Your task to perform on an android device: open app "DoorDash - Food Delivery" Image 0: 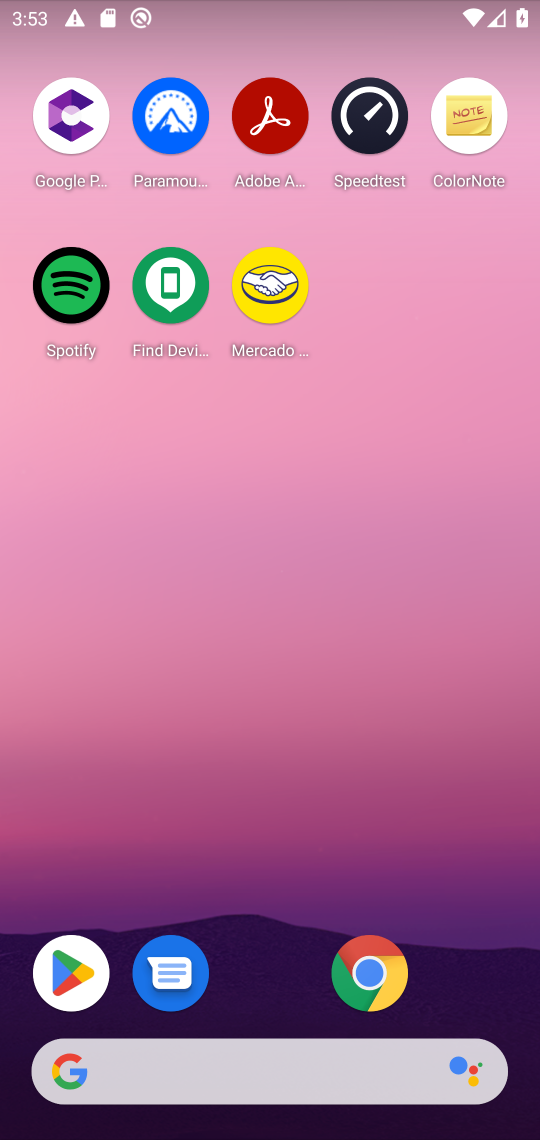
Step 0: drag from (343, 928) to (246, 434)
Your task to perform on an android device: open app "DoorDash - Food Delivery" Image 1: 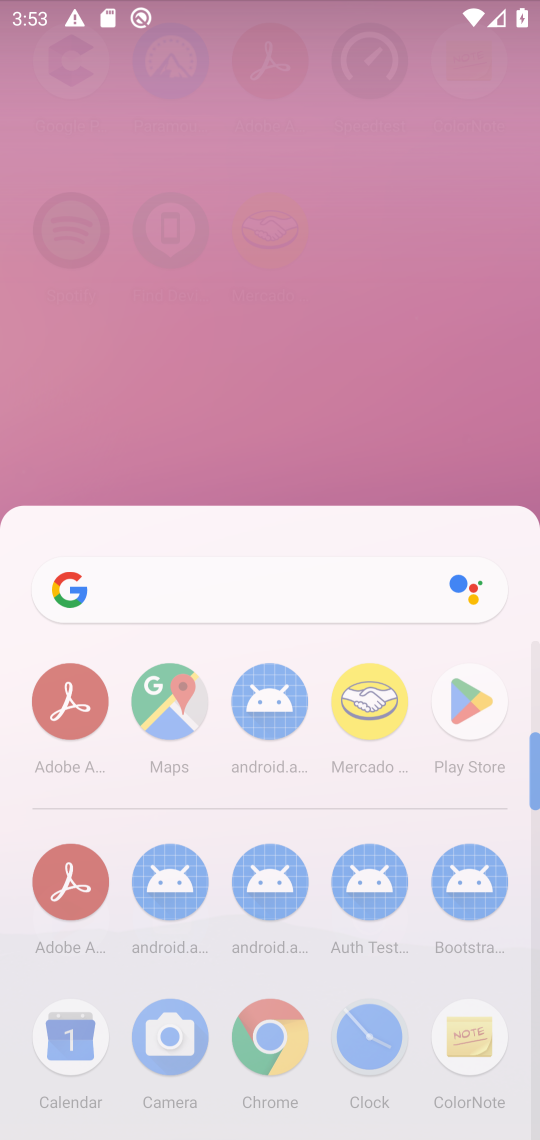
Step 1: drag from (238, 810) to (168, 330)
Your task to perform on an android device: open app "DoorDash - Food Delivery" Image 2: 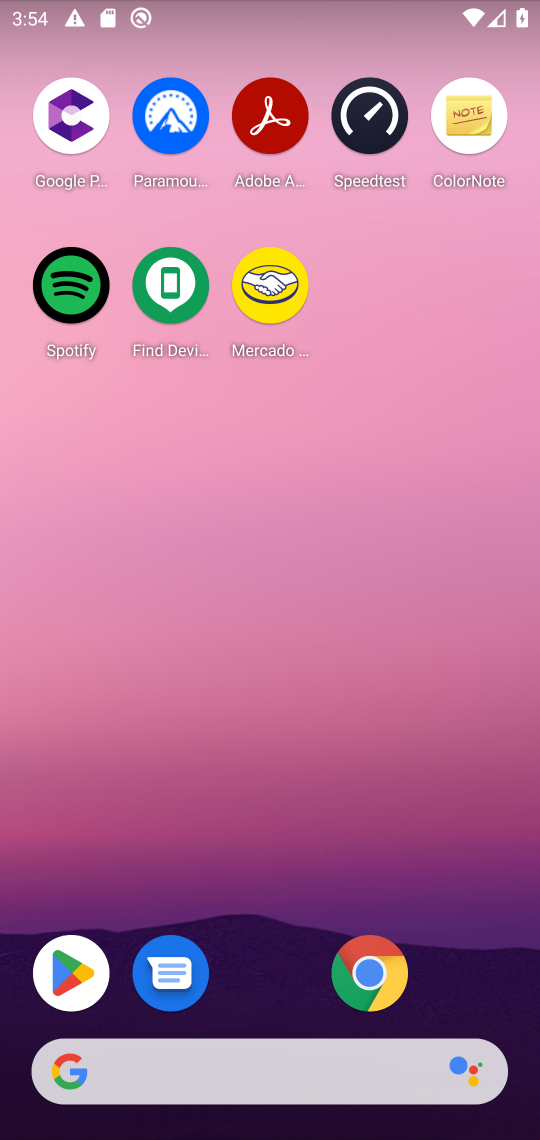
Step 2: drag from (368, 947) to (319, 334)
Your task to perform on an android device: open app "DoorDash - Food Delivery" Image 3: 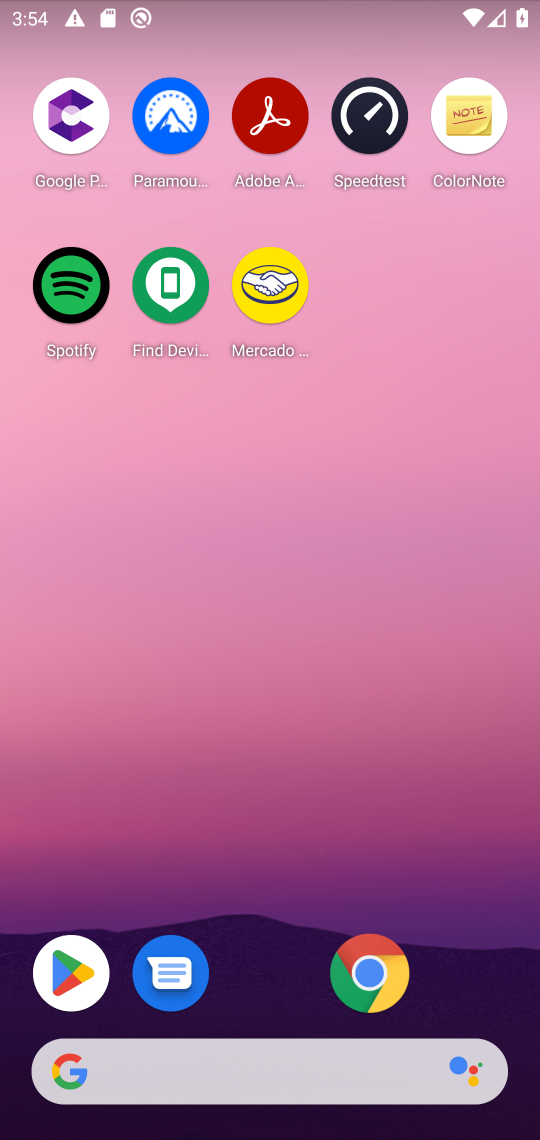
Step 3: drag from (266, 754) to (220, 310)
Your task to perform on an android device: open app "DoorDash - Food Delivery" Image 4: 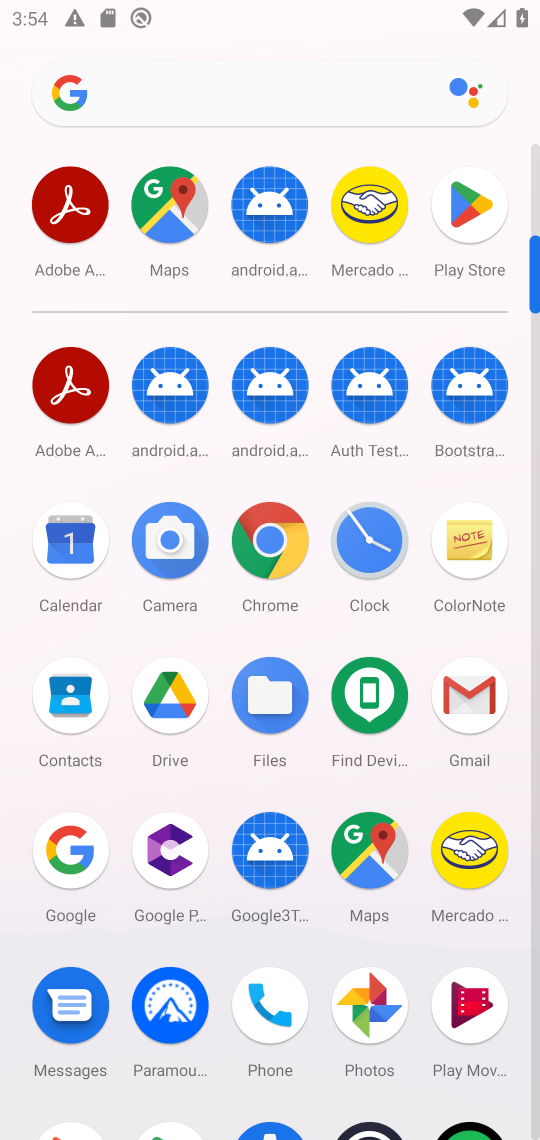
Step 4: drag from (373, 764) to (330, 365)
Your task to perform on an android device: open app "DoorDash - Food Delivery" Image 5: 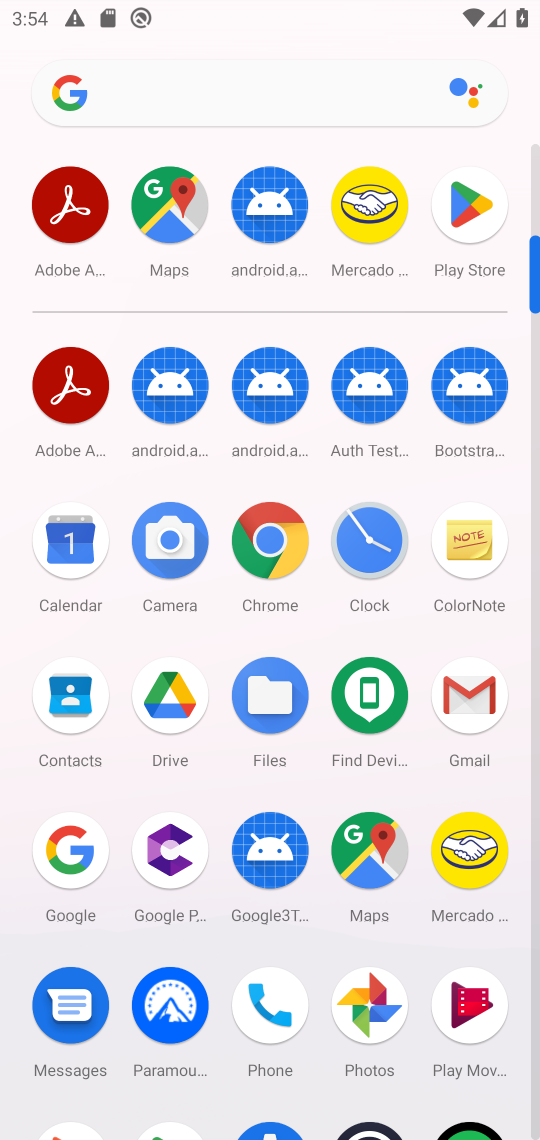
Step 5: click (484, 200)
Your task to perform on an android device: open app "DoorDash - Food Delivery" Image 6: 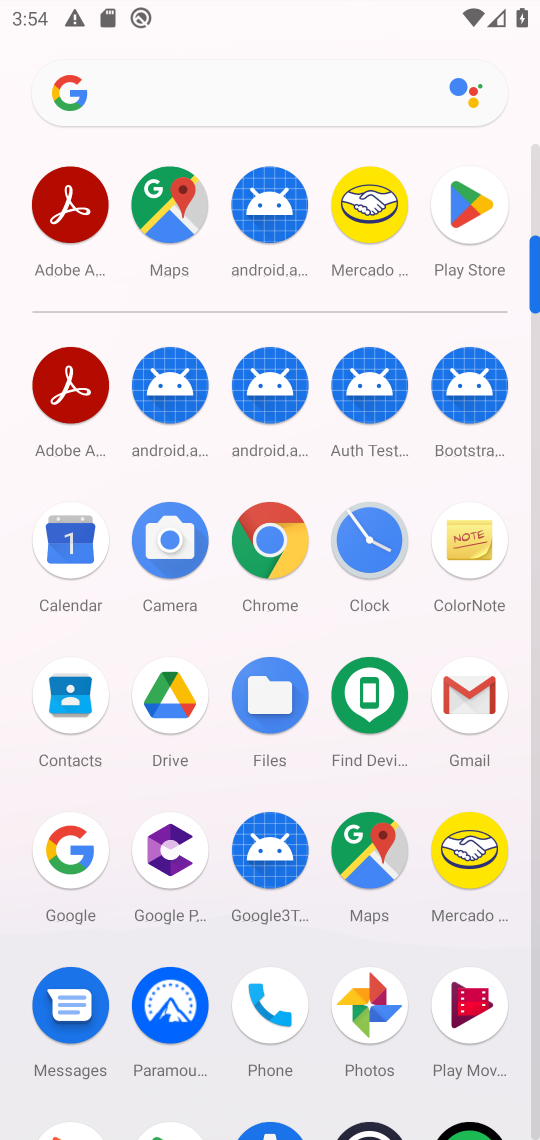
Step 6: click (484, 200)
Your task to perform on an android device: open app "DoorDash - Food Delivery" Image 7: 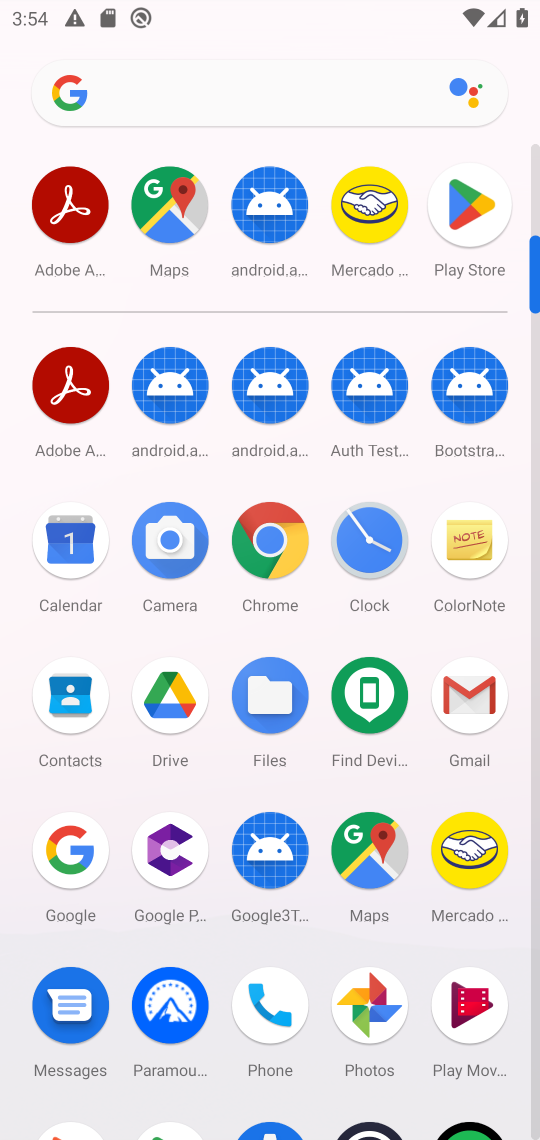
Step 7: click (482, 199)
Your task to perform on an android device: open app "DoorDash - Food Delivery" Image 8: 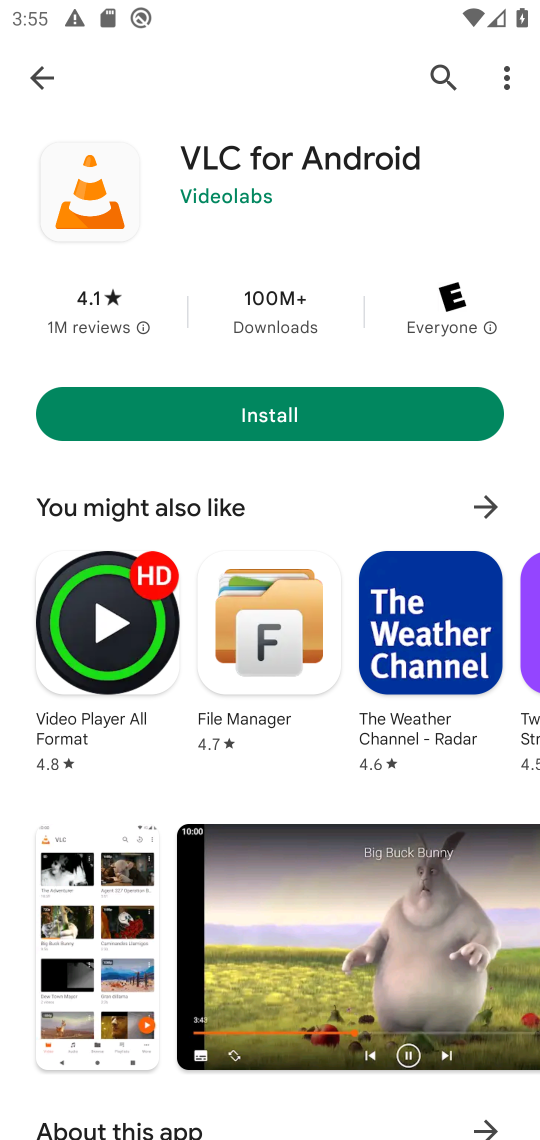
Step 8: click (285, 415)
Your task to perform on an android device: open app "DoorDash - Food Delivery" Image 9: 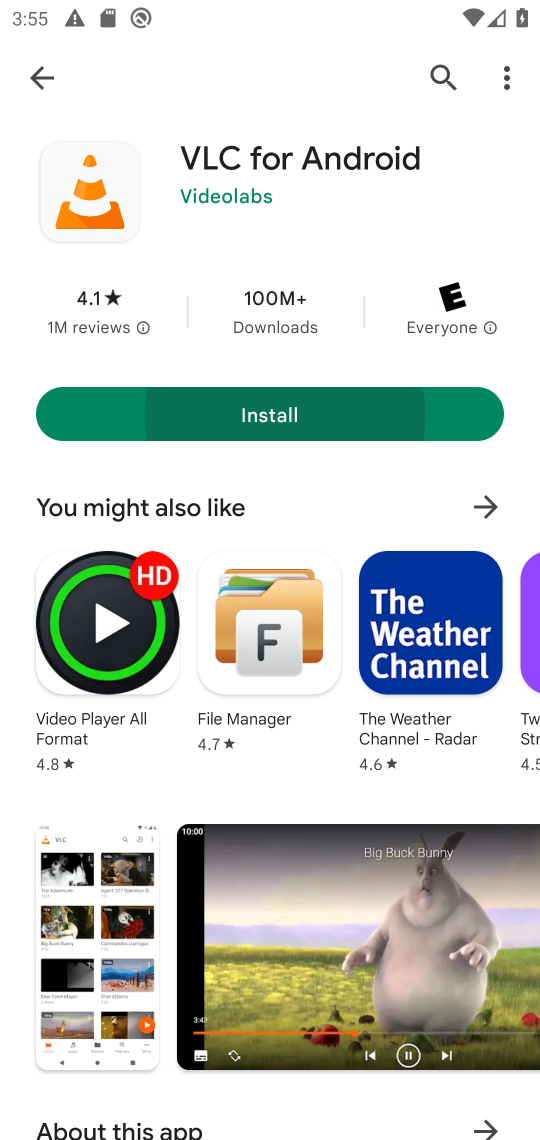
Step 9: click (285, 415)
Your task to perform on an android device: open app "DoorDash - Food Delivery" Image 10: 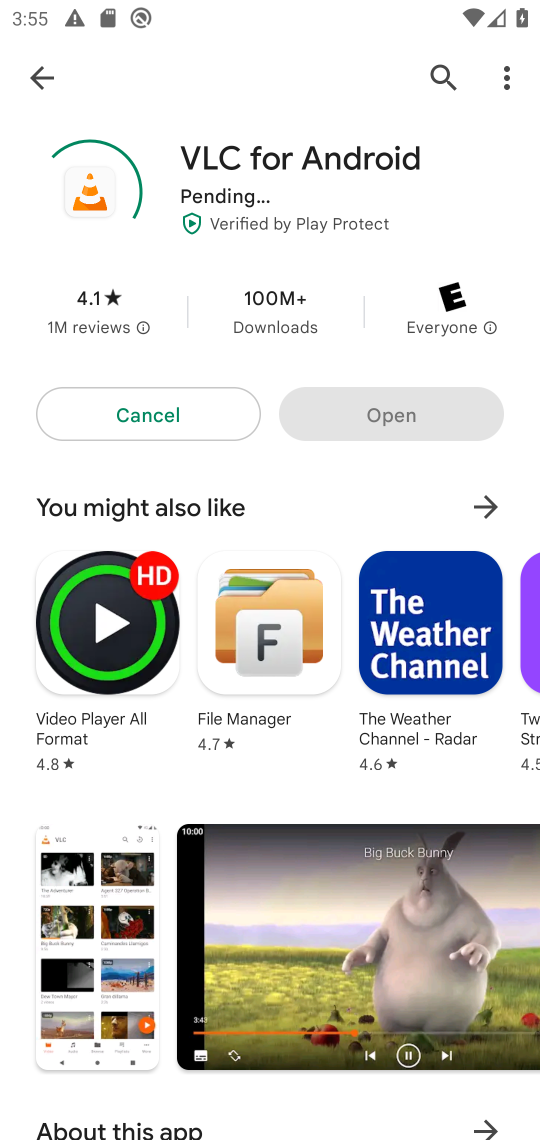
Step 10: click (16, 60)
Your task to perform on an android device: open app "DoorDash - Food Delivery" Image 11: 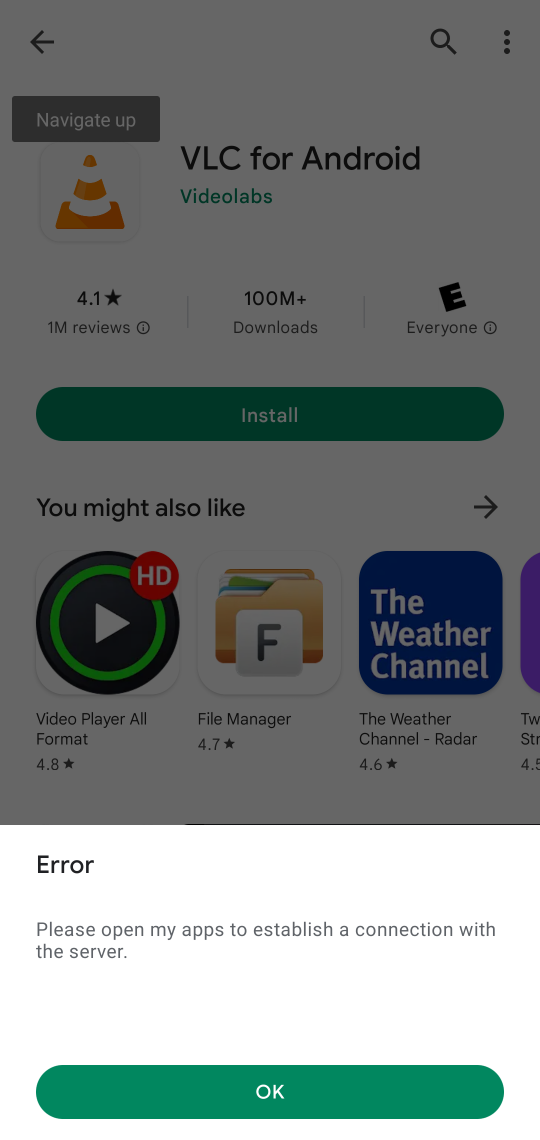
Step 11: click (365, 422)
Your task to perform on an android device: open app "DoorDash - Food Delivery" Image 12: 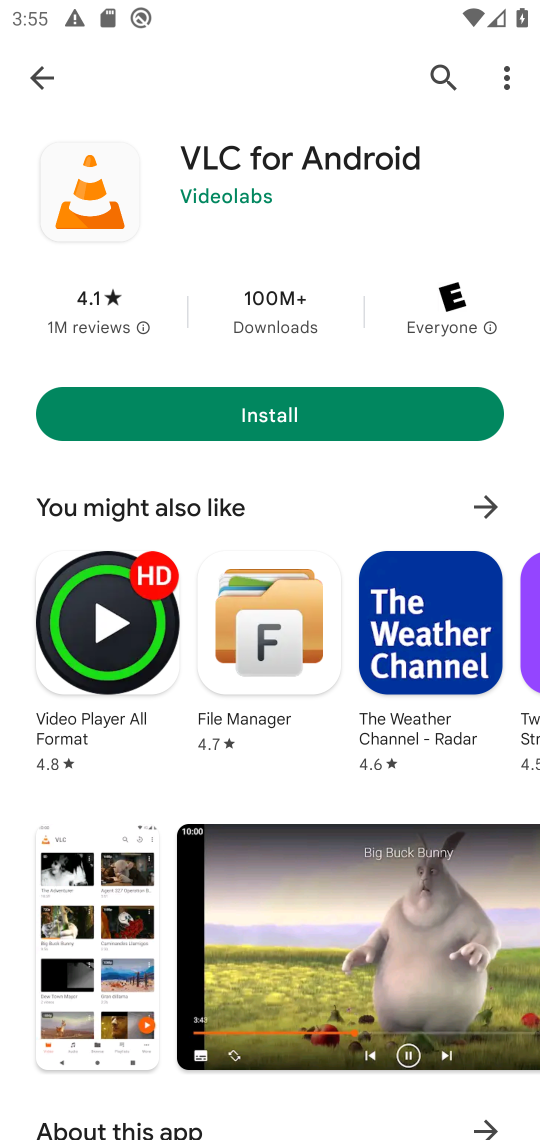
Step 12: press back button
Your task to perform on an android device: open app "DoorDash - Food Delivery" Image 13: 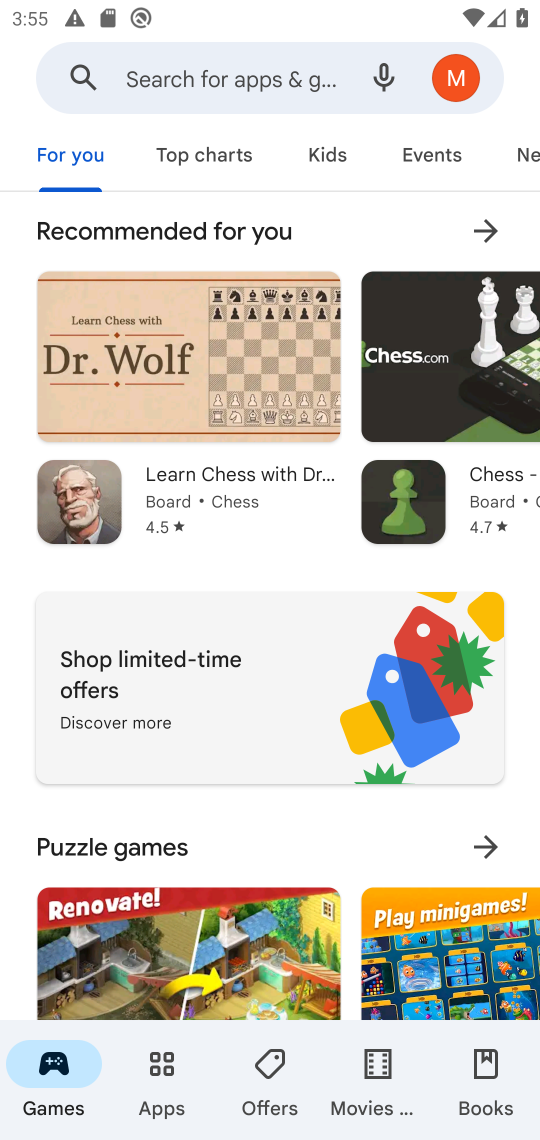
Step 13: click (169, 87)
Your task to perform on an android device: open app "DoorDash - Food Delivery" Image 14: 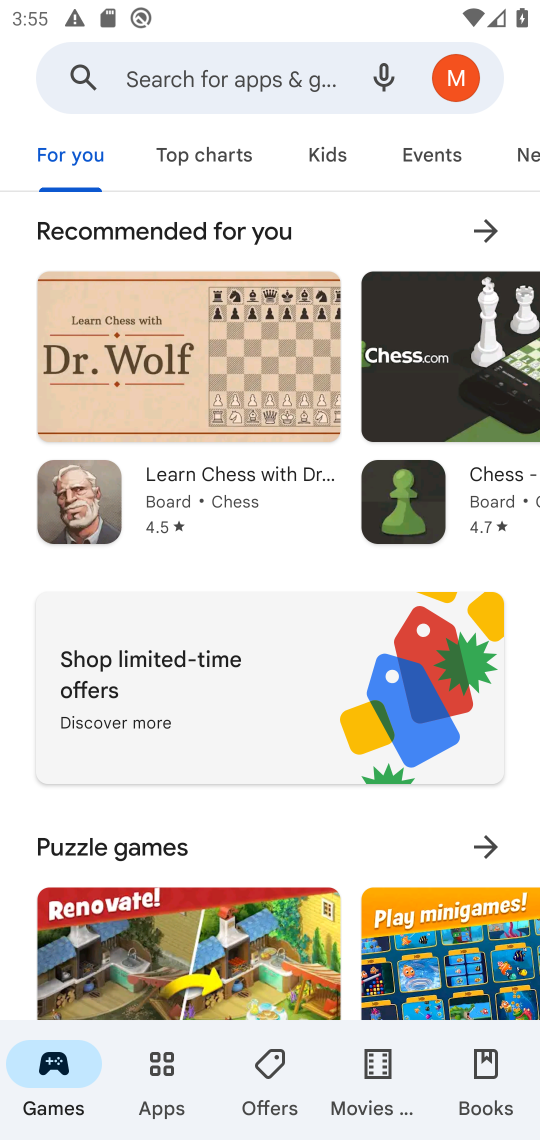
Step 14: click (181, 95)
Your task to perform on an android device: open app "DoorDash - Food Delivery" Image 15: 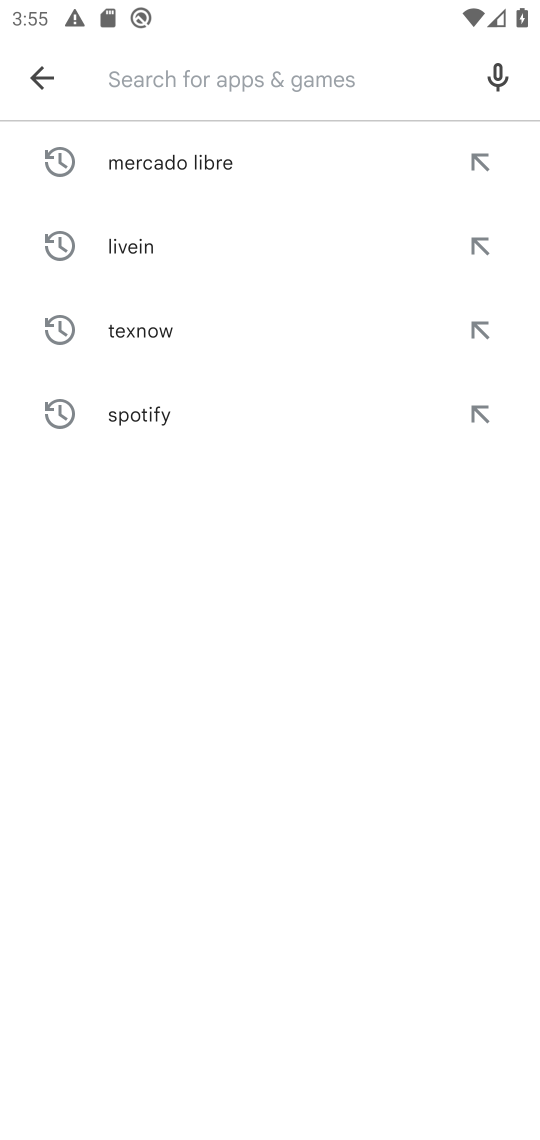
Step 15: click (163, 97)
Your task to perform on an android device: open app "DoorDash - Food Delivery" Image 16: 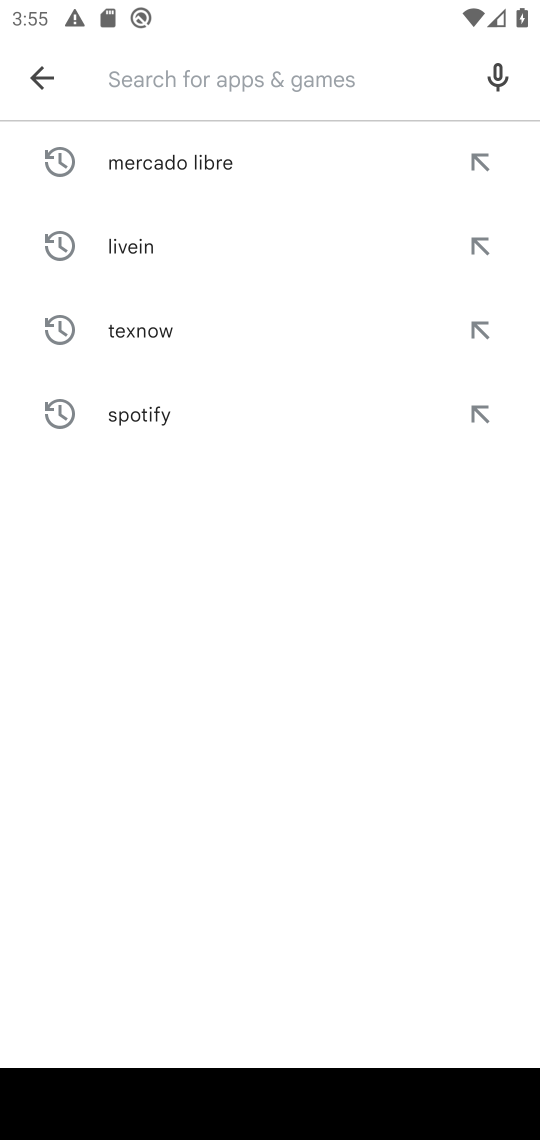
Step 16: type "doordash"
Your task to perform on an android device: open app "DoorDash - Food Delivery" Image 17: 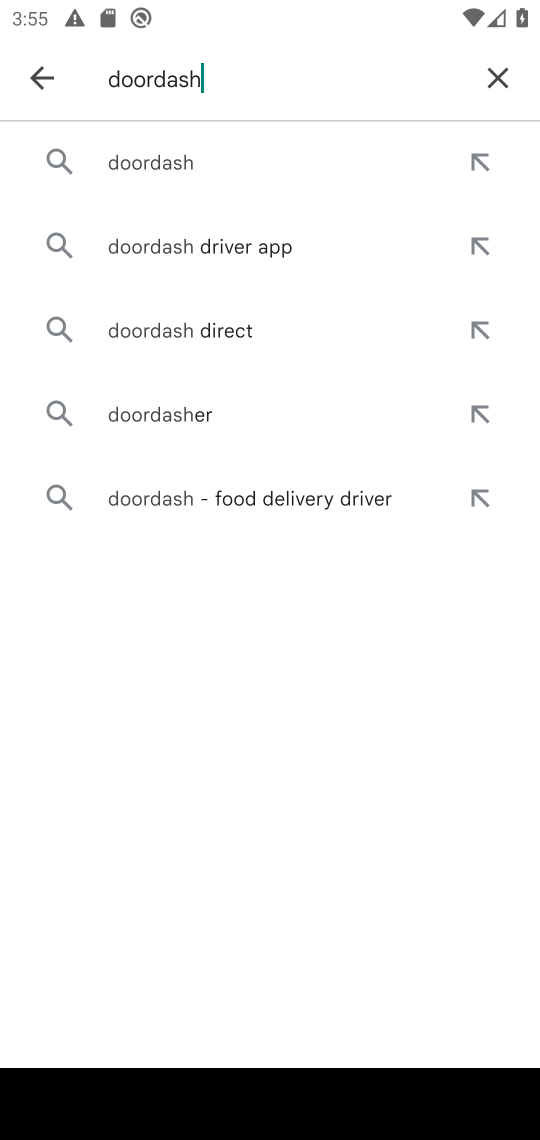
Step 17: click (159, 149)
Your task to perform on an android device: open app "DoorDash - Food Delivery" Image 18: 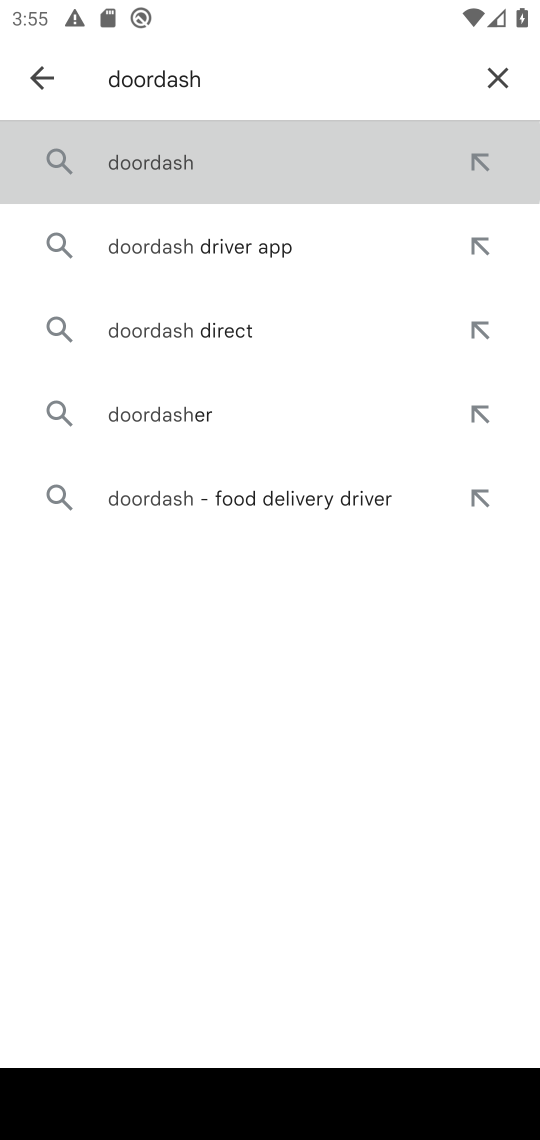
Step 18: click (165, 149)
Your task to perform on an android device: open app "DoorDash - Food Delivery" Image 19: 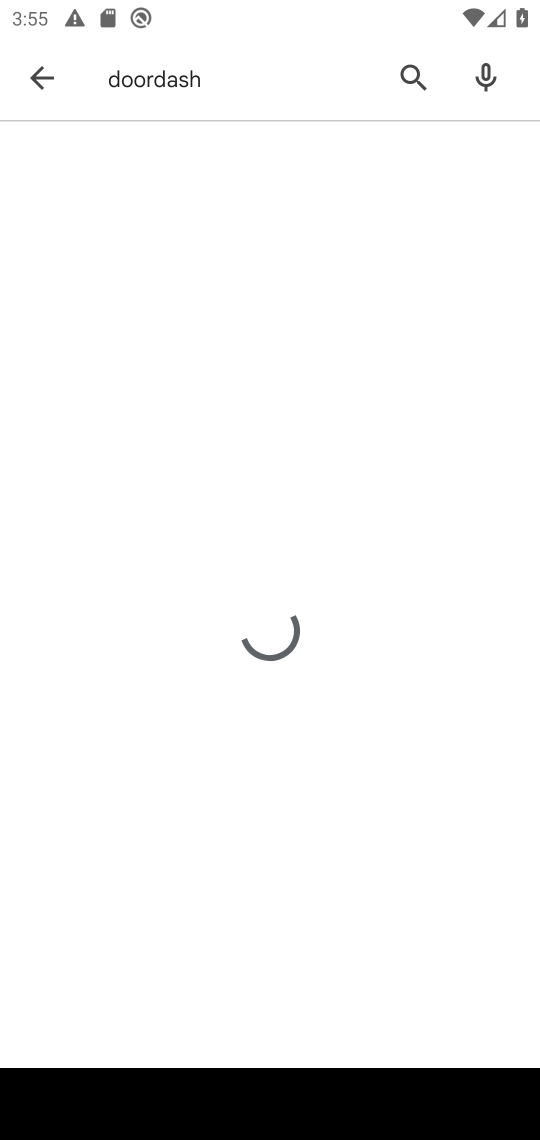
Step 19: click (171, 152)
Your task to perform on an android device: open app "DoorDash - Food Delivery" Image 20: 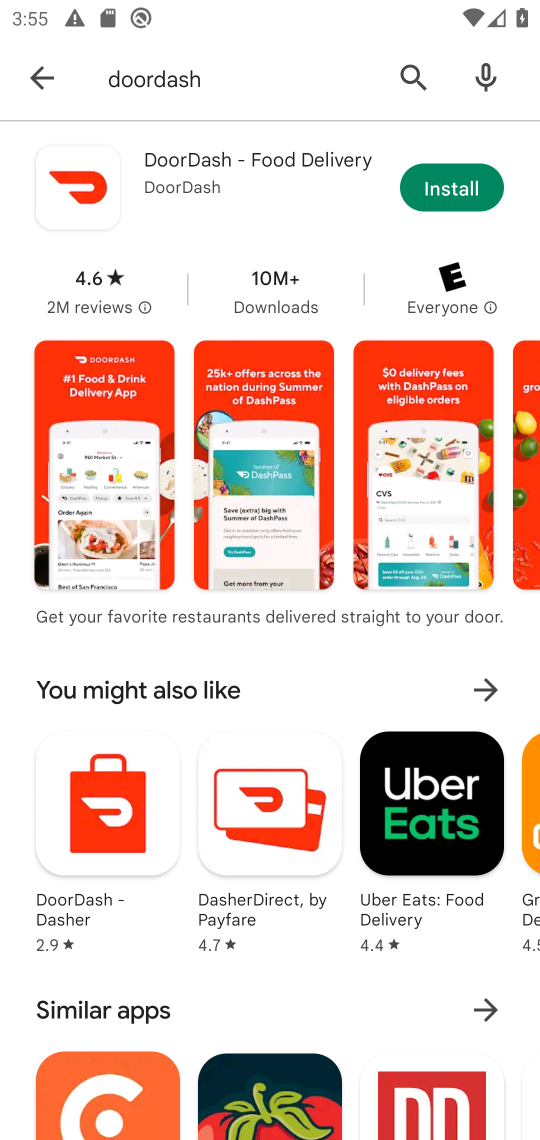
Step 20: click (439, 195)
Your task to perform on an android device: open app "DoorDash - Food Delivery" Image 21: 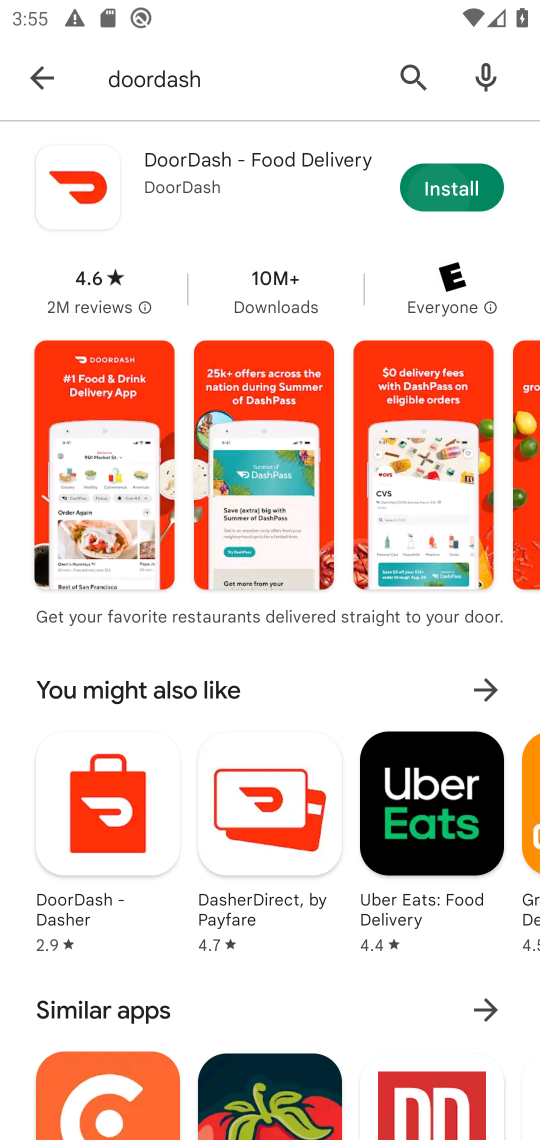
Step 21: click (440, 194)
Your task to perform on an android device: open app "DoorDash - Food Delivery" Image 22: 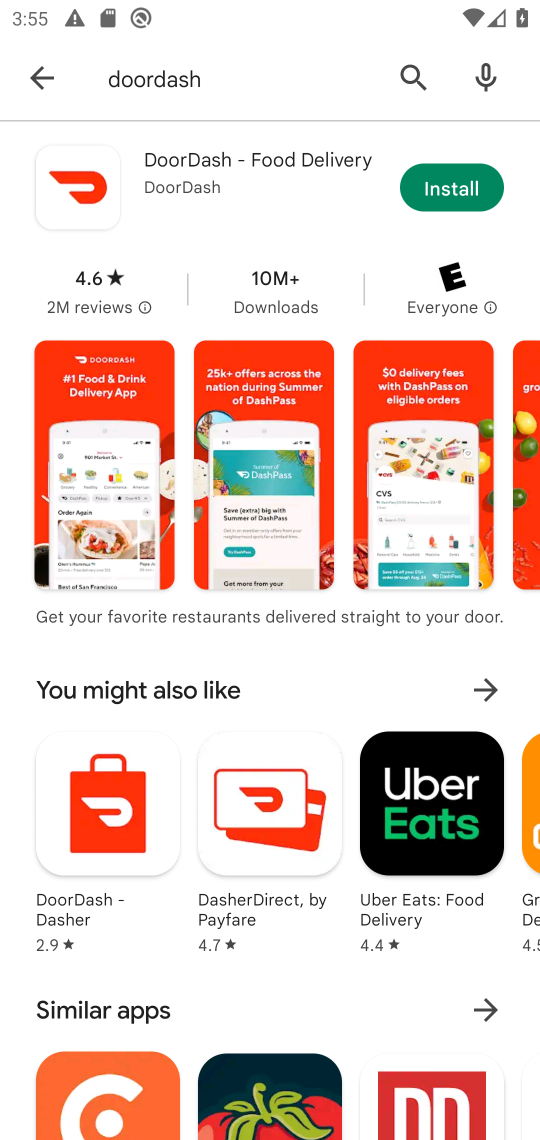
Step 22: click (482, 191)
Your task to perform on an android device: open app "DoorDash - Food Delivery" Image 23: 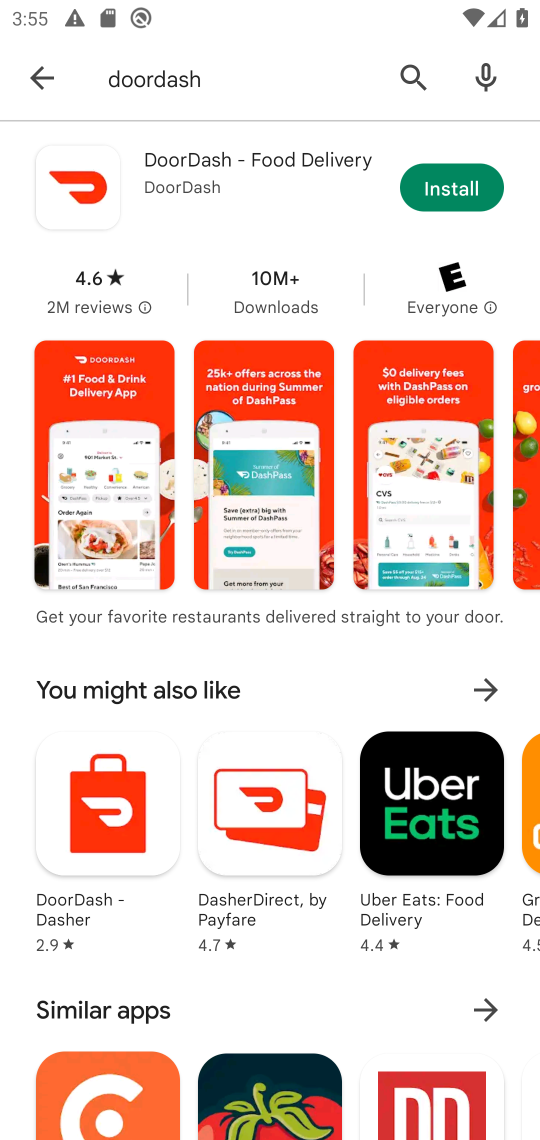
Step 23: click (480, 190)
Your task to perform on an android device: open app "DoorDash - Food Delivery" Image 24: 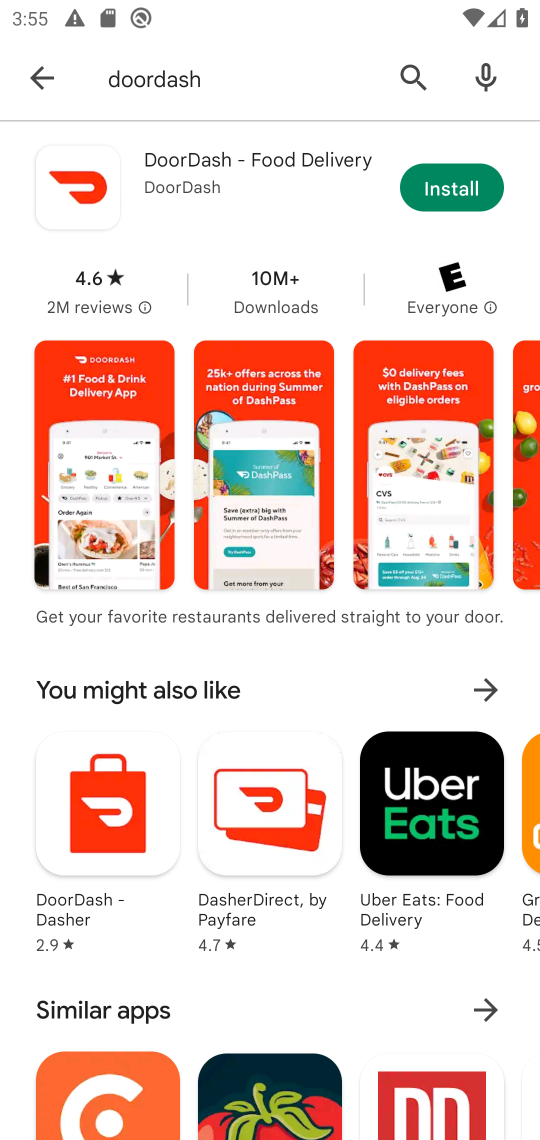
Step 24: click (431, 198)
Your task to perform on an android device: open app "DoorDash - Food Delivery" Image 25: 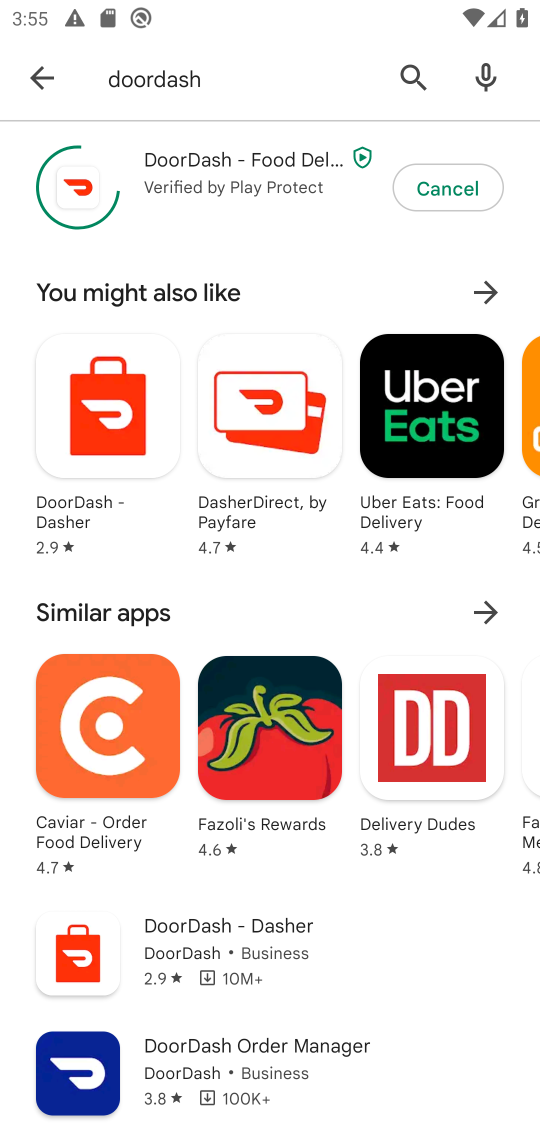
Step 25: click (432, 201)
Your task to perform on an android device: open app "DoorDash - Food Delivery" Image 26: 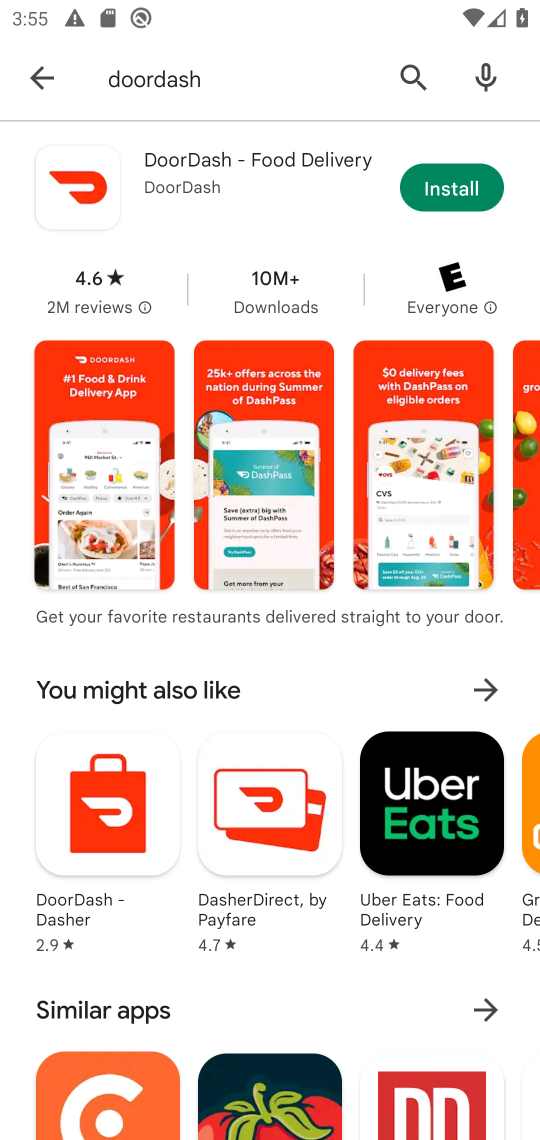
Step 26: click (427, 185)
Your task to perform on an android device: open app "DoorDash - Food Delivery" Image 27: 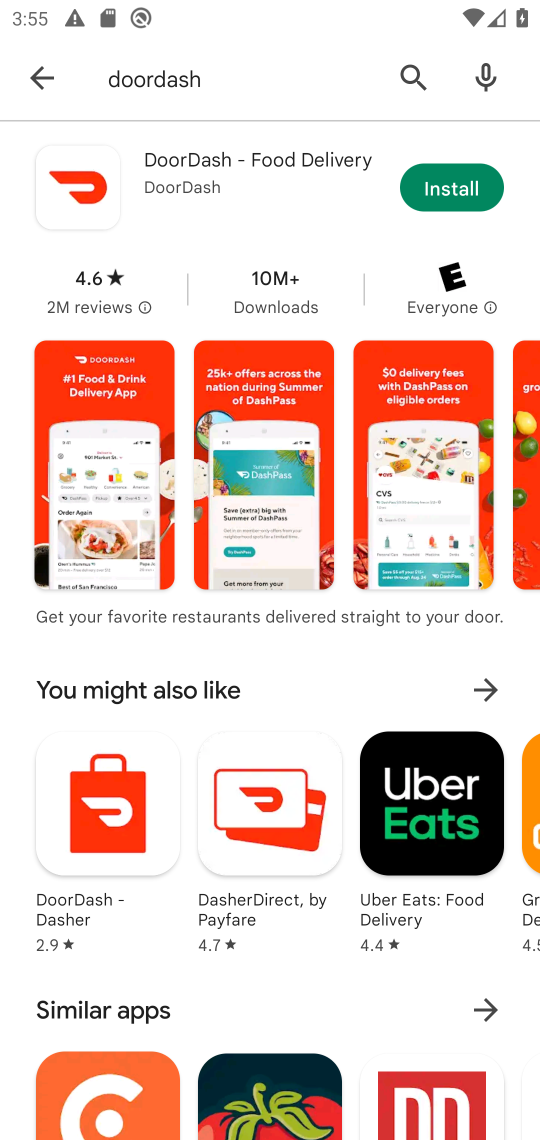
Step 27: click (435, 184)
Your task to perform on an android device: open app "DoorDash - Food Delivery" Image 28: 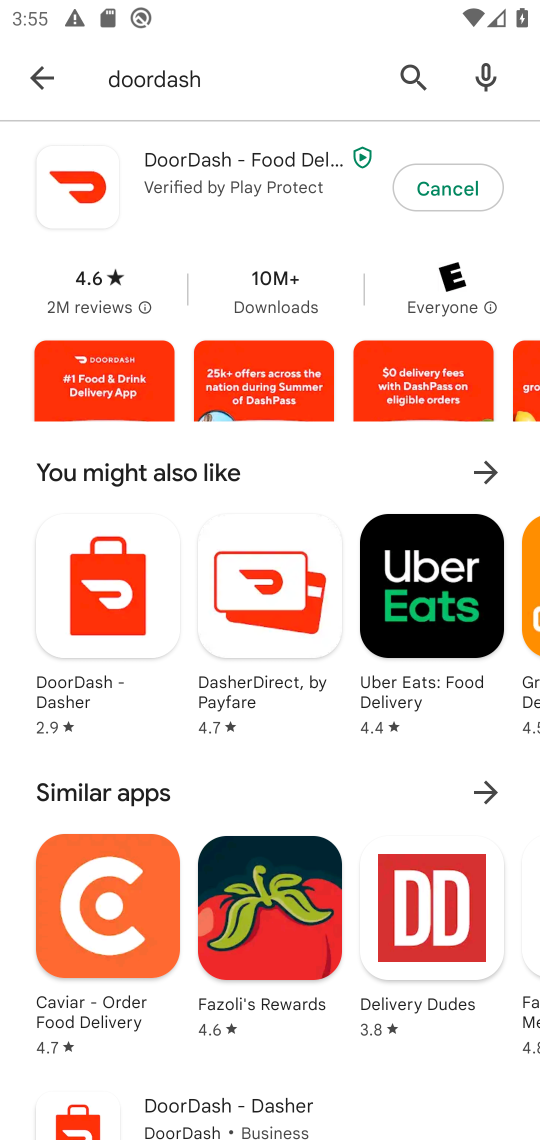
Step 28: click (436, 183)
Your task to perform on an android device: open app "DoorDash - Food Delivery" Image 29: 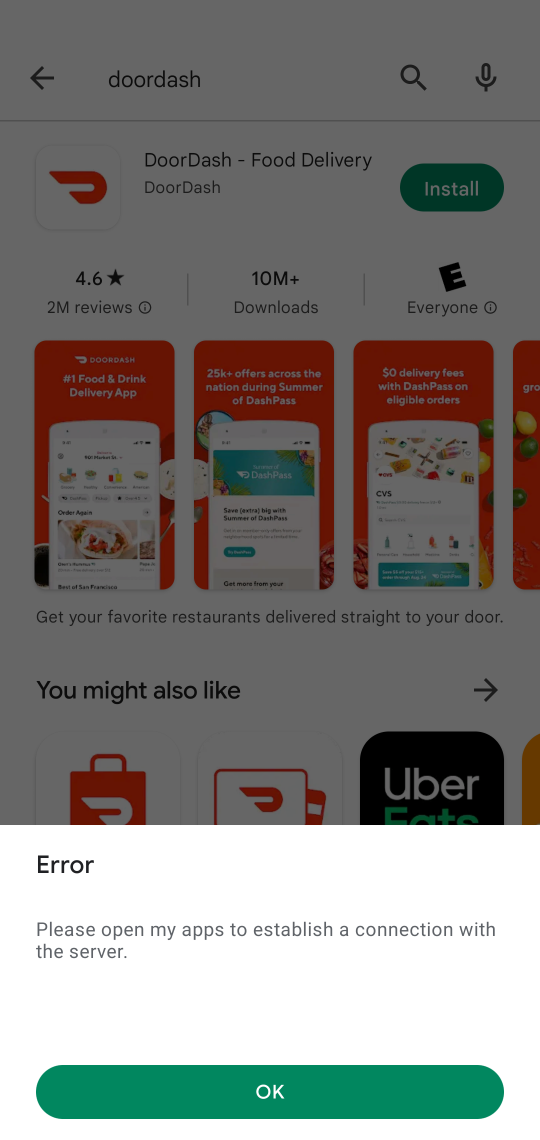
Step 29: click (301, 1097)
Your task to perform on an android device: open app "DoorDash - Food Delivery" Image 30: 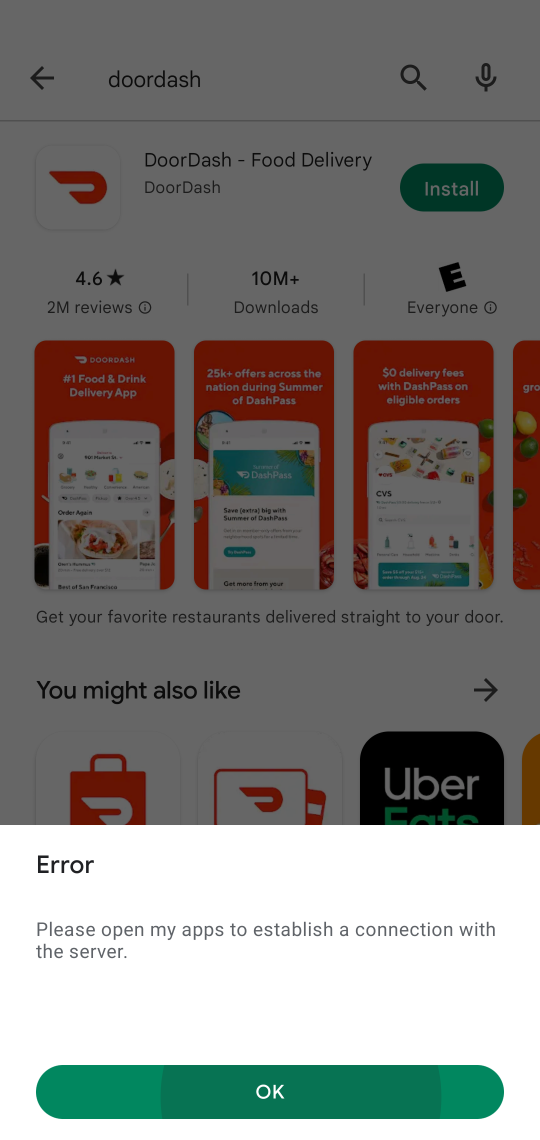
Step 30: click (331, 1083)
Your task to perform on an android device: open app "DoorDash - Food Delivery" Image 31: 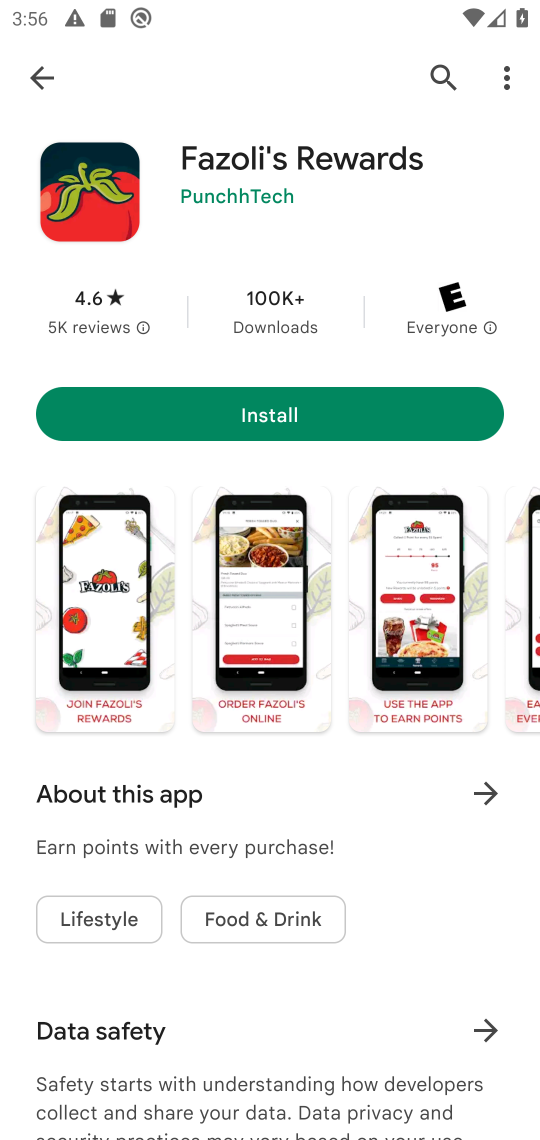
Step 31: click (261, 415)
Your task to perform on an android device: open app "DoorDash - Food Delivery" Image 32: 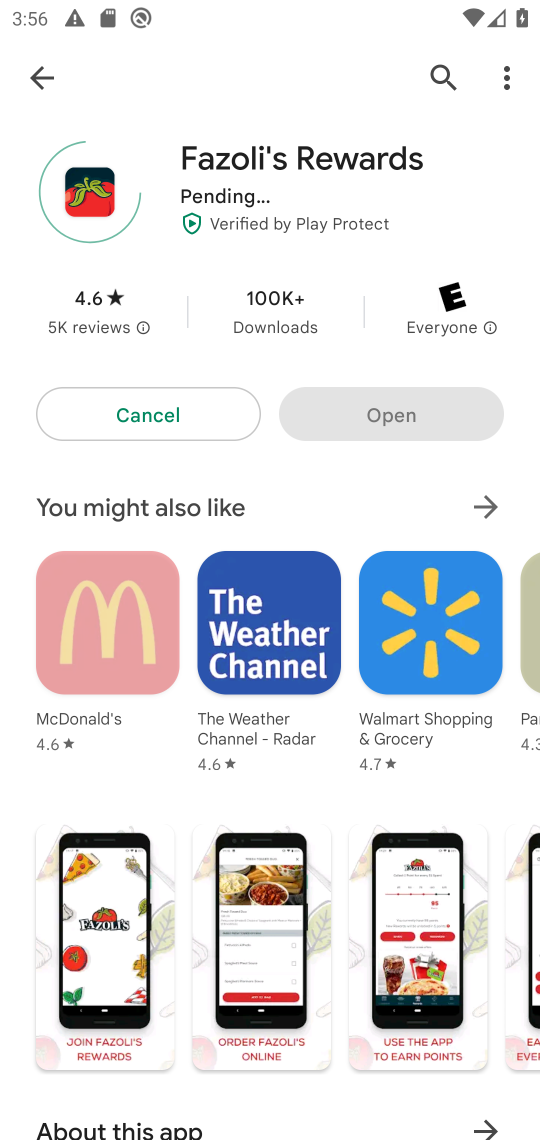
Step 32: click (37, 73)
Your task to perform on an android device: open app "DoorDash - Food Delivery" Image 33: 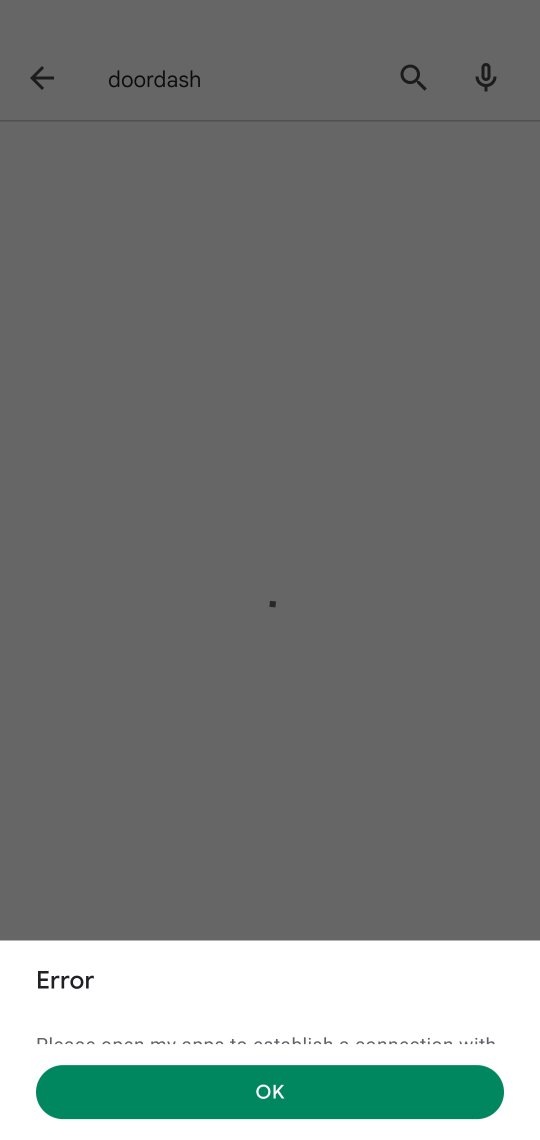
Step 33: click (153, 392)
Your task to perform on an android device: open app "DoorDash - Food Delivery" Image 34: 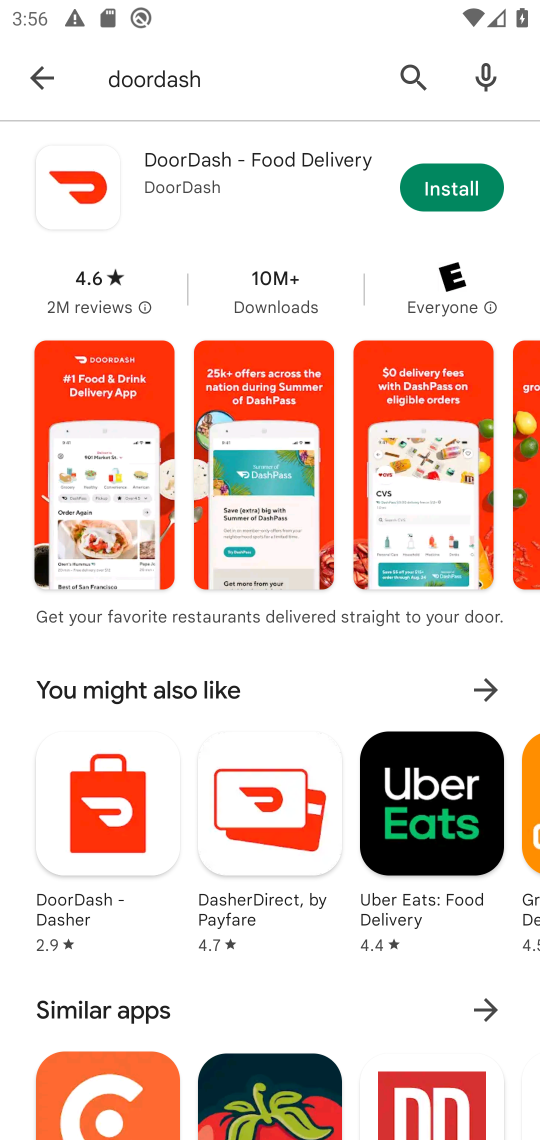
Step 34: click (271, 1103)
Your task to perform on an android device: open app "DoorDash - Food Delivery" Image 35: 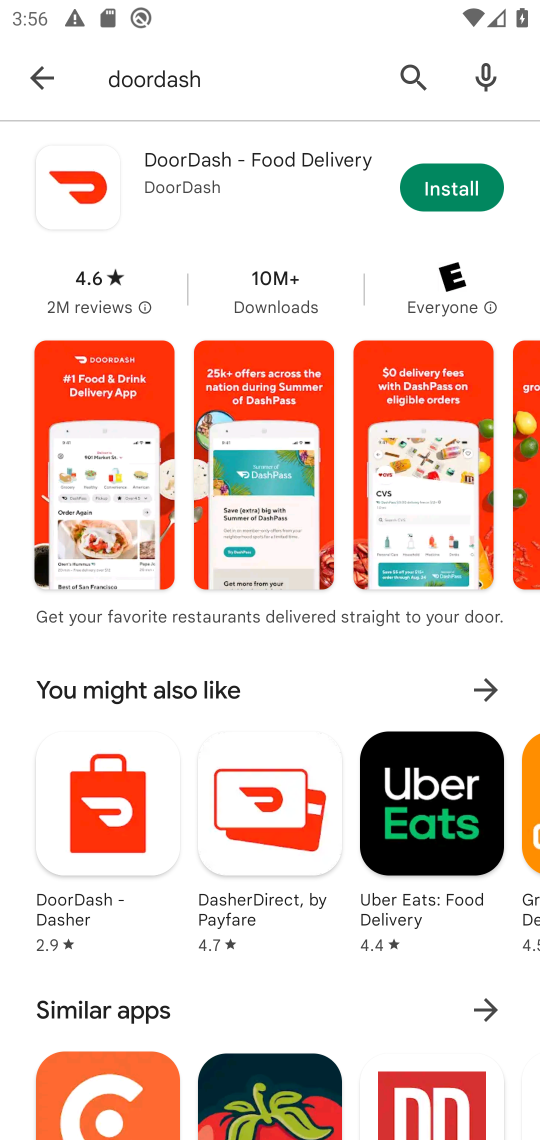
Step 35: click (433, 189)
Your task to perform on an android device: open app "DoorDash - Food Delivery" Image 36: 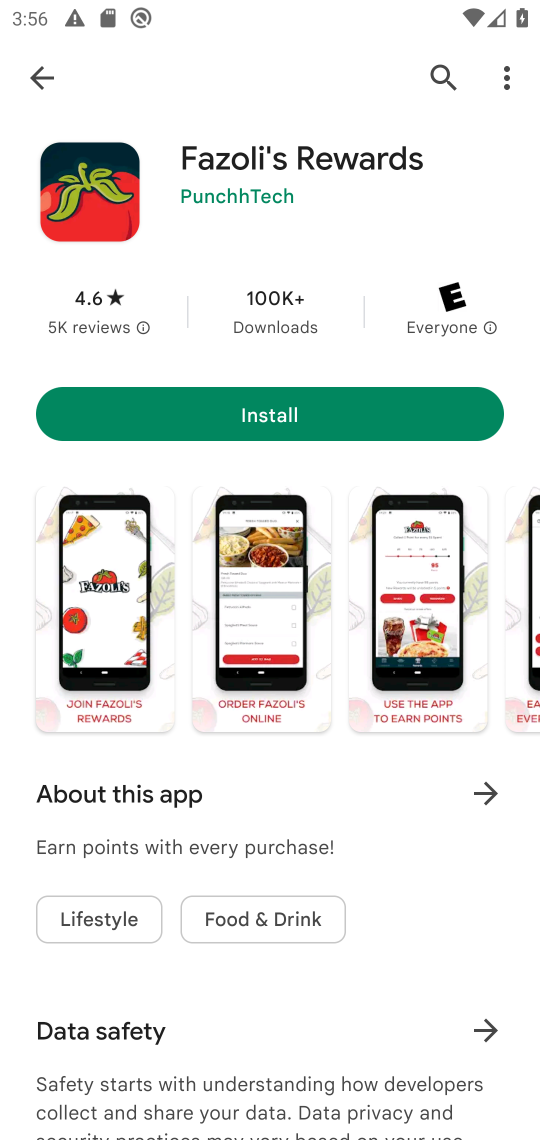
Step 36: click (448, 190)
Your task to perform on an android device: open app "DoorDash - Food Delivery" Image 37: 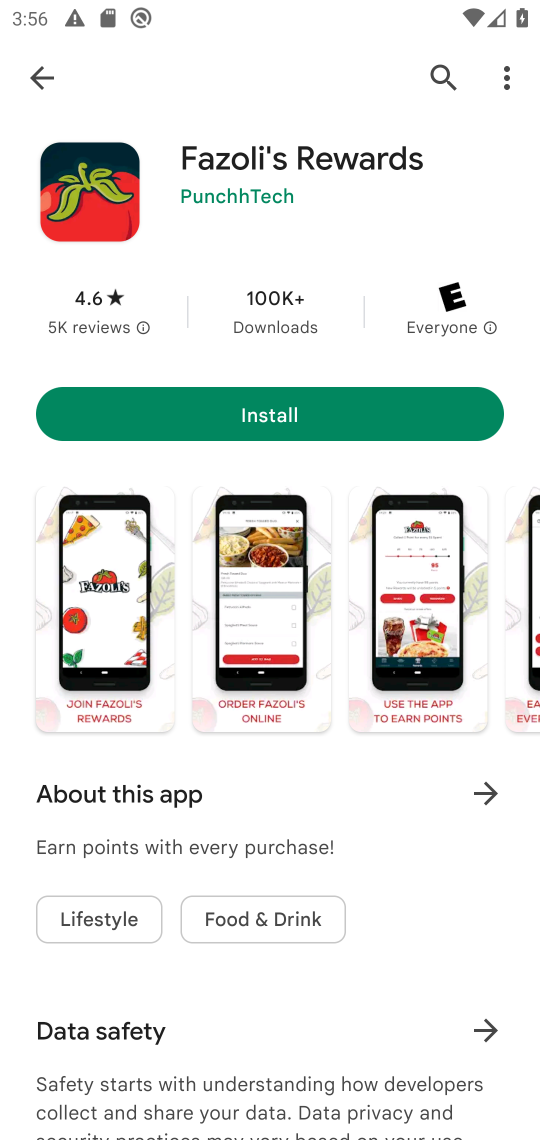
Step 37: click (31, 68)
Your task to perform on an android device: open app "DoorDash - Food Delivery" Image 38: 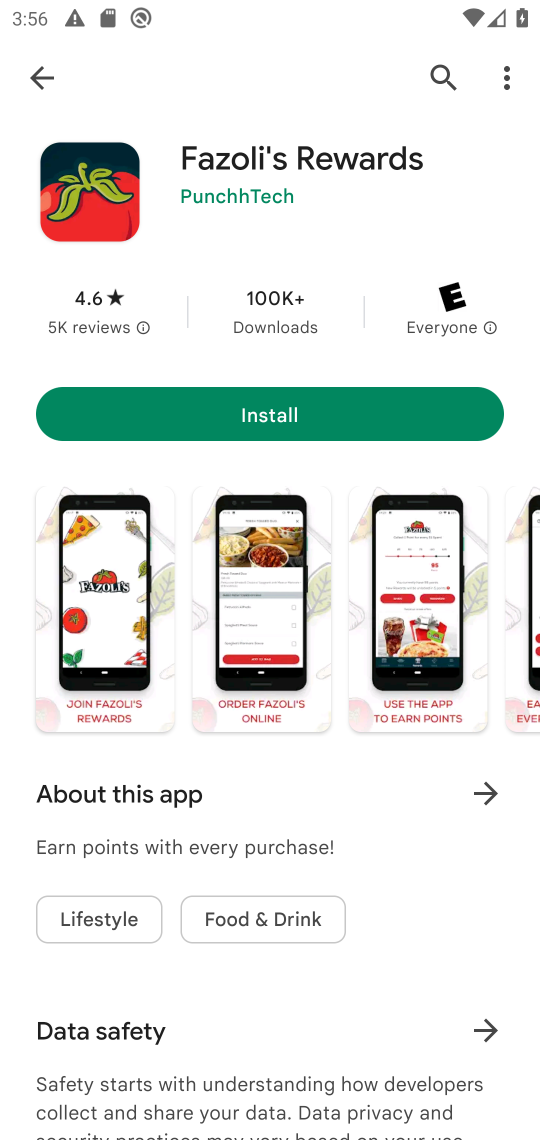
Step 38: click (38, 79)
Your task to perform on an android device: open app "DoorDash - Food Delivery" Image 39: 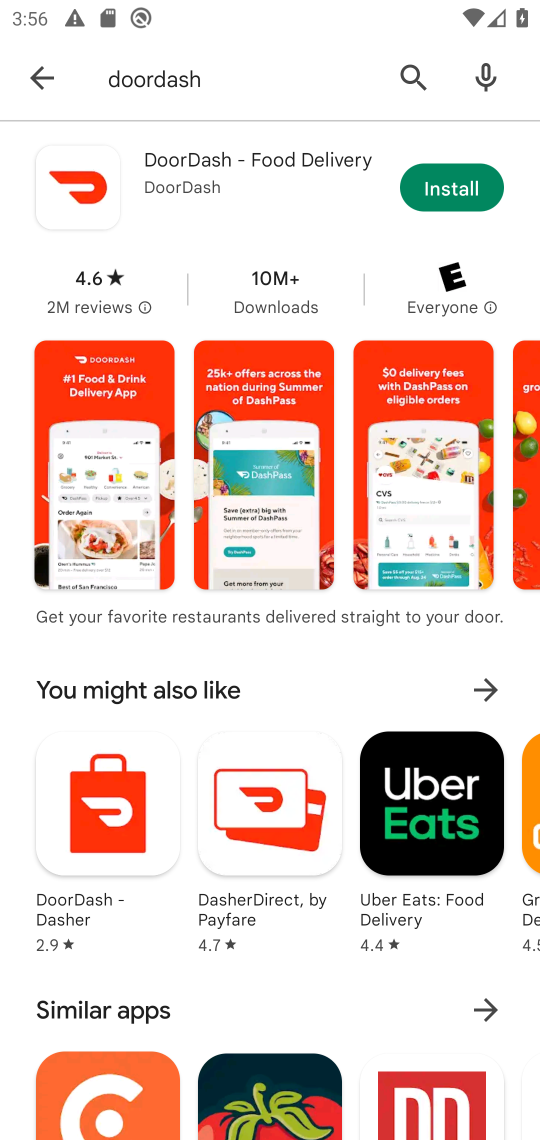
Step 39: click (430, 185)
Your task to perform on an android device: open app "DoorDash - Food Delivery" Image 40: 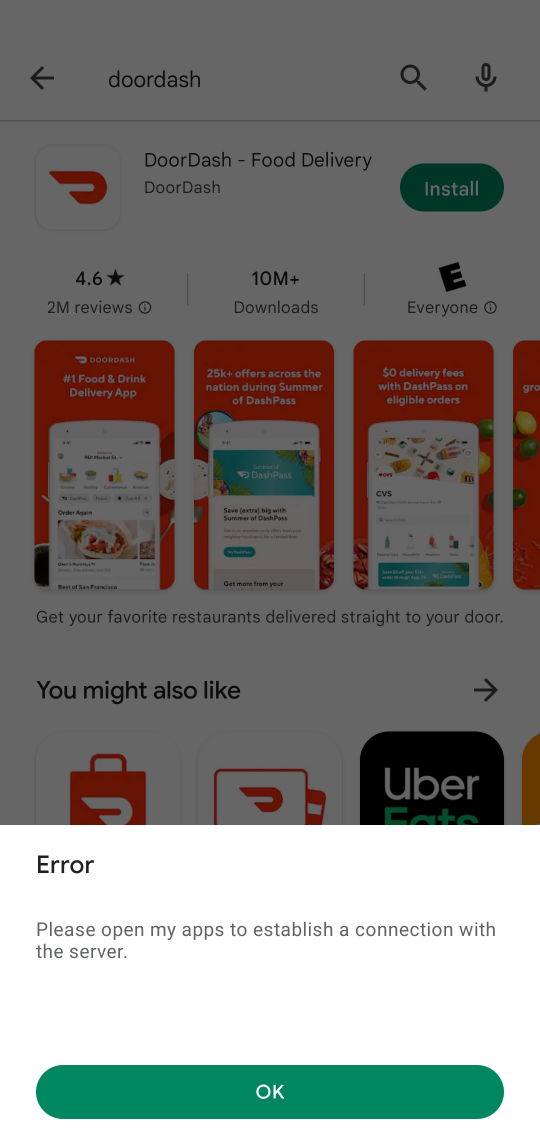
Step 40: click (298, 1085)
Your task to perform on an android device: open app "DoorDash - Food Delivery" Image 41: 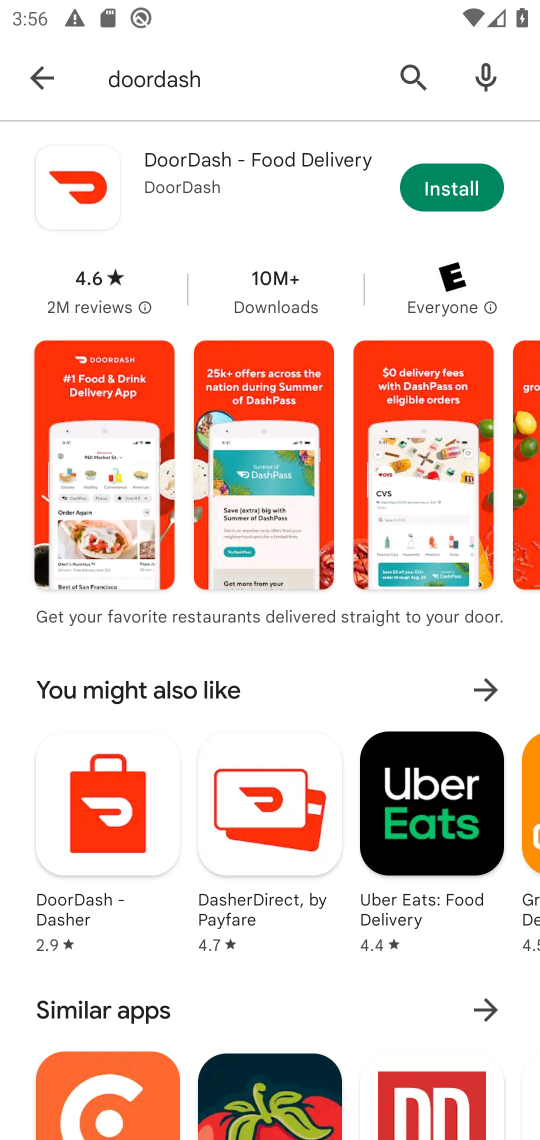
Step 41: click (445, 187)
Your task to perform on an android device: open app "DoorDash - Food Delivery" Image 42: 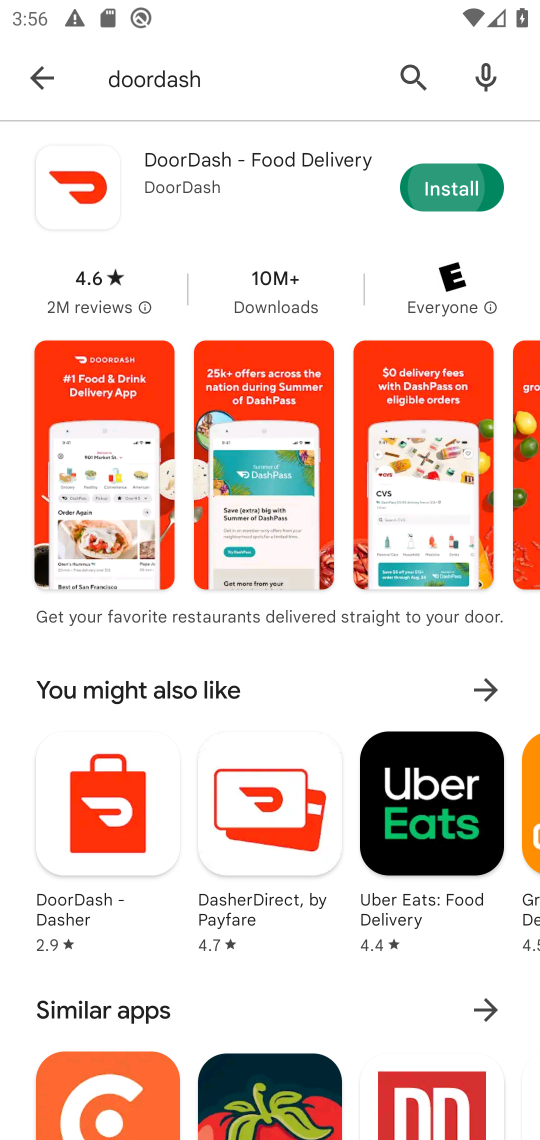
Step 42: click (449, 190)
Your task to perform on an android device: open app "DoorDash - Food Delivery" Image 43: 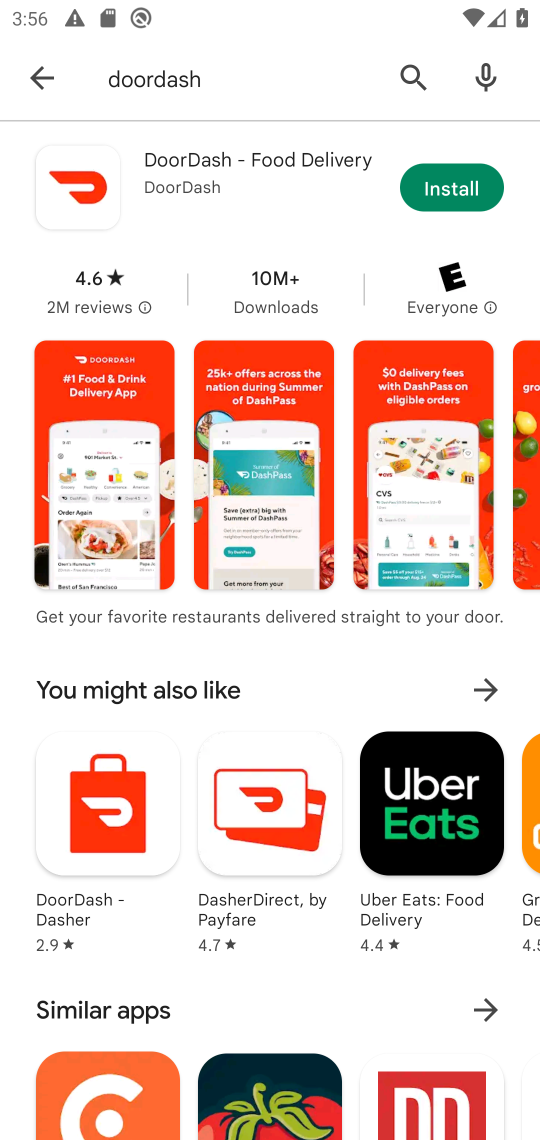
Step 43: click (459, 187)
Your task to perform on an android device: open app "DoorDash - Food Delivery" Image 44: 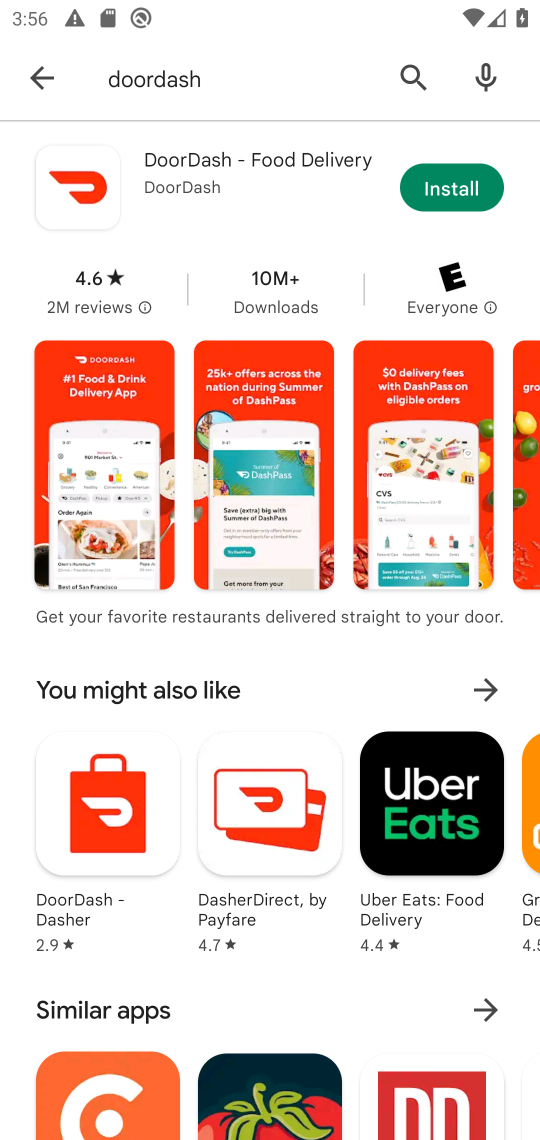
Step 44: click (465, 173)
Your task to perform on an android device: open app "DoorDash - Food Delivery" Image 45: 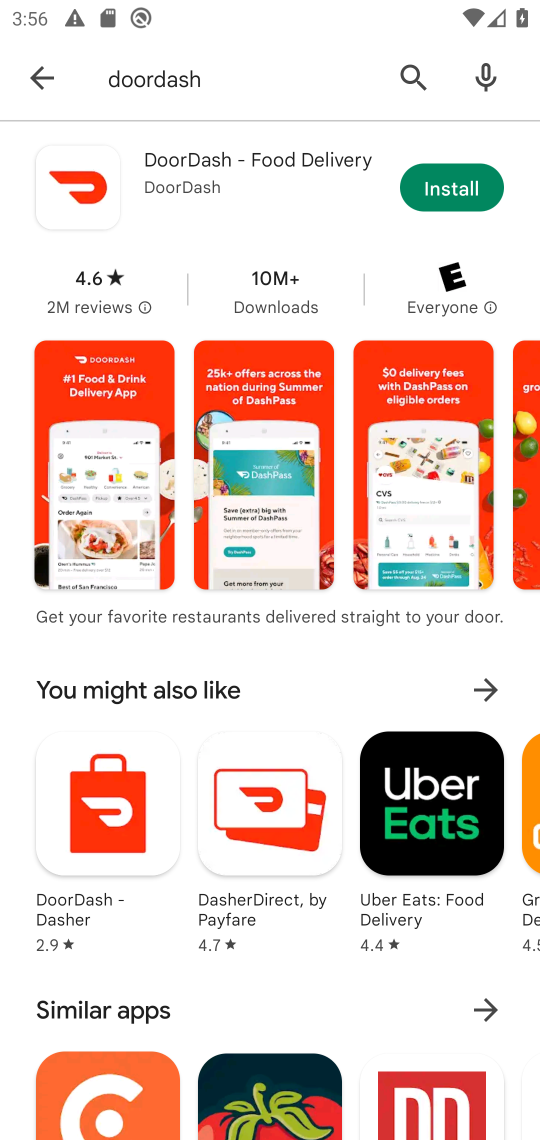
Step 45: click (466, 171)
Your task to perform on an android device: open app "DoorDash - Food Delivery" Image 46: 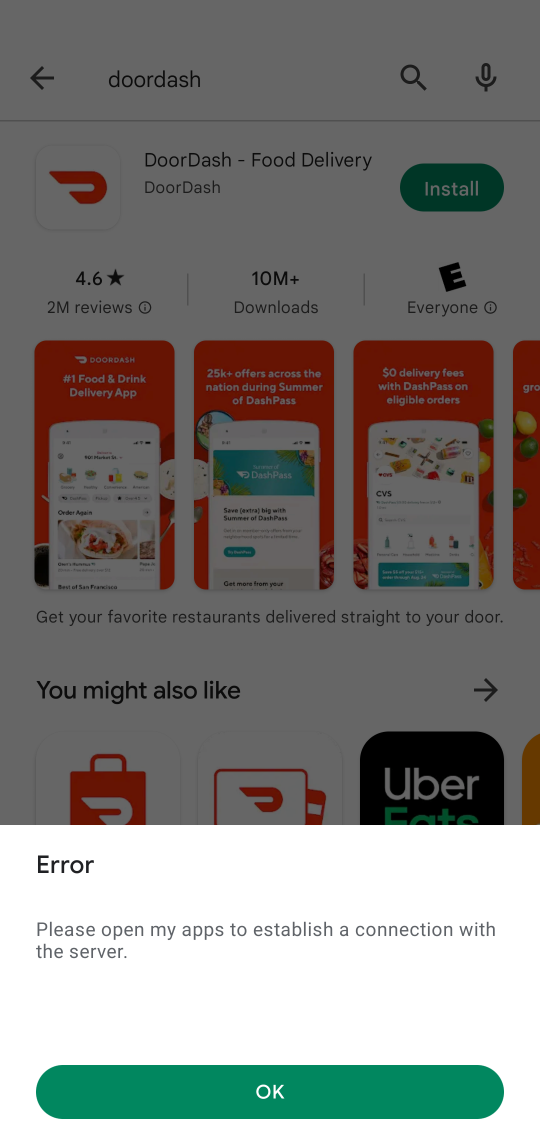
Step 46: click (296, 1096)
Your task to perform on an android device: open app "DoorDash - Food Delivery" Image 47: 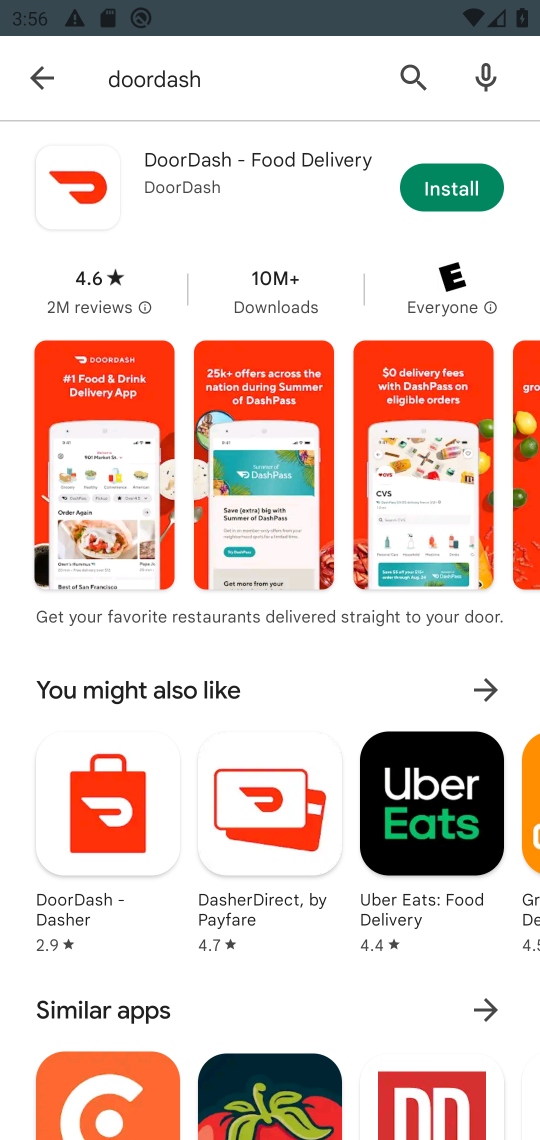
Step 47: task complete